Your task to perform on an android device: Open battery settings Image 0: 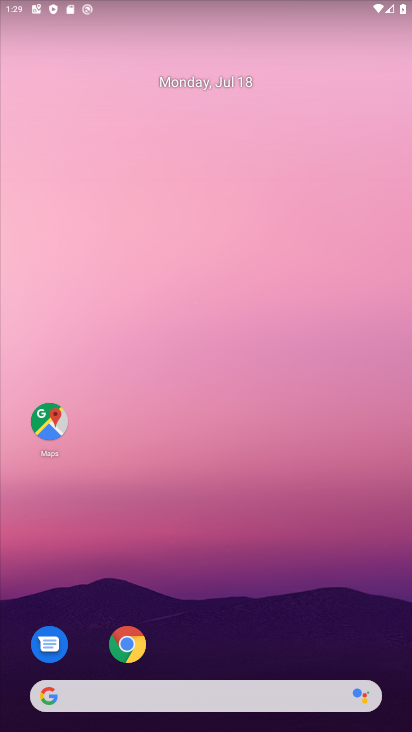
Step 0: drag from (254, 620) to (218, 63)
Your task to perform on an android device: Open battery settings Image 1: 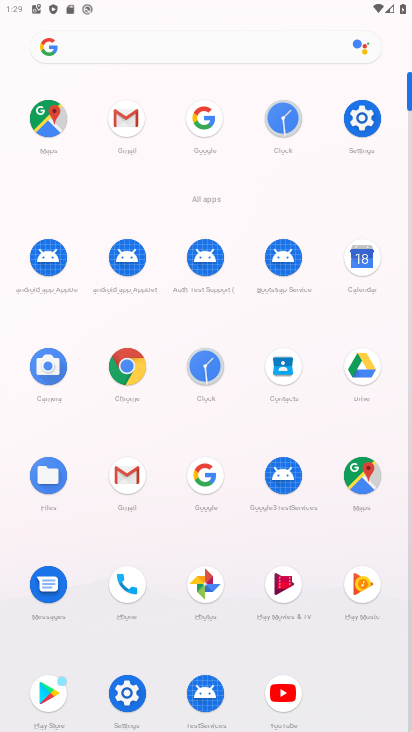
Step 1: click (362, 121)
Your task to perform on an android device: Open battery settings Image 2: 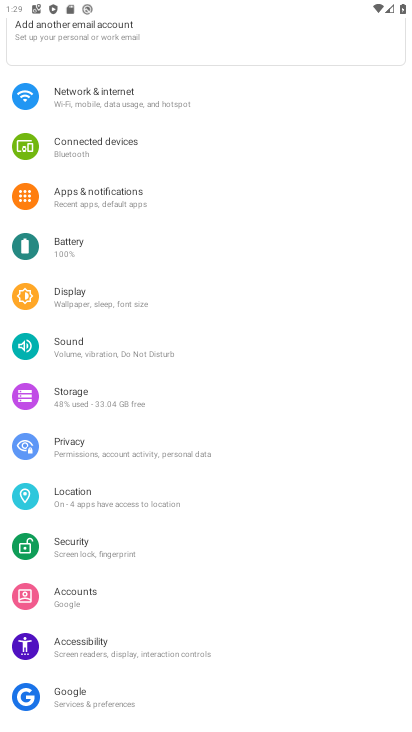
Step 2: click (84, 250)
Your task to perform on an android device: Open battery settings Image 3: 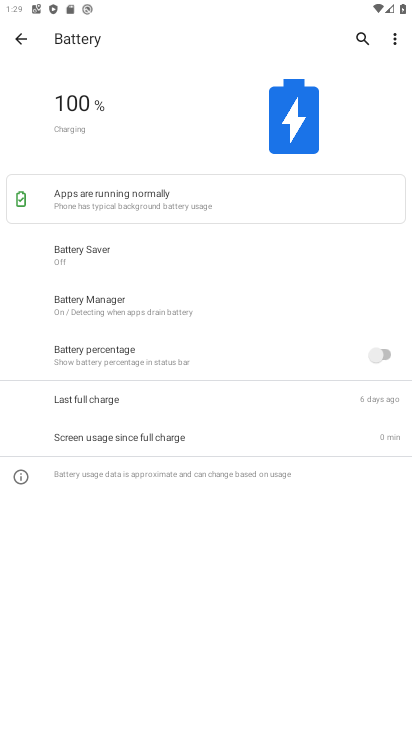
Step 3: task complete